Your task to perform on an android device: Open sound settings Image 0: 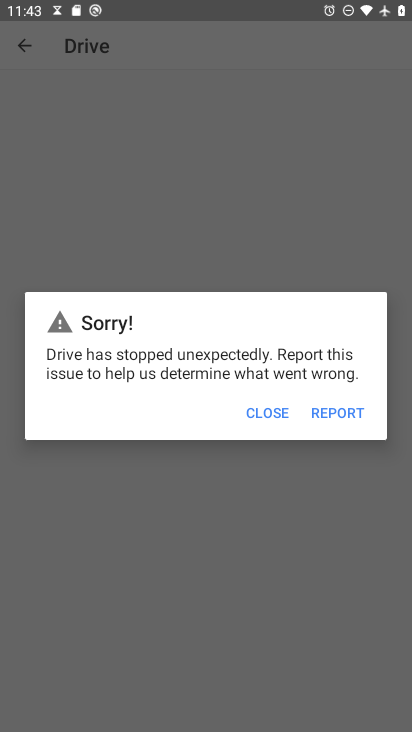
Step 0: press home button
Your task to perform on an android device: Open sound settings Image 1: 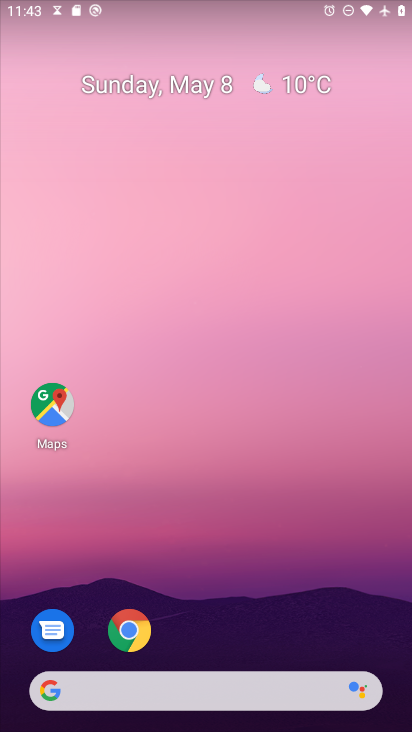
Step 1: drag from (207, 686) to (352, 74)
Your task to perform on an android device: Open sound settings Image 2: 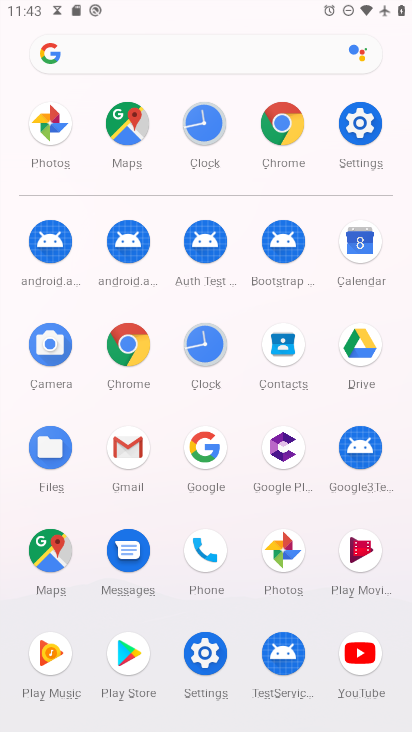
Step 2: click (356, 120)
Your task to perform on an android device: Open sound settings Image 3: 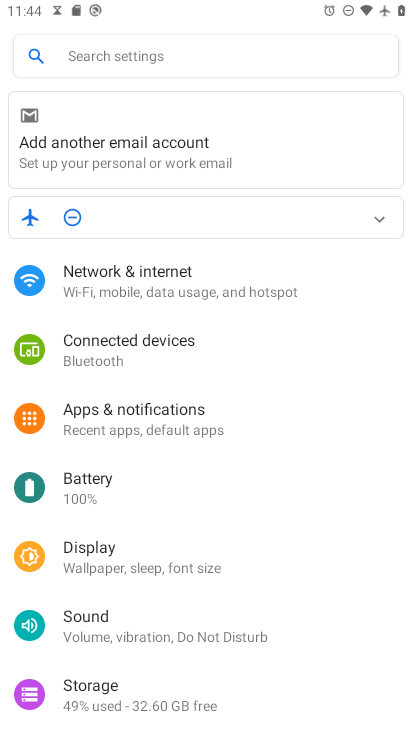
Step 3: click (144, 621)
Your task to perform on an android device: Open sound settings Image 4: 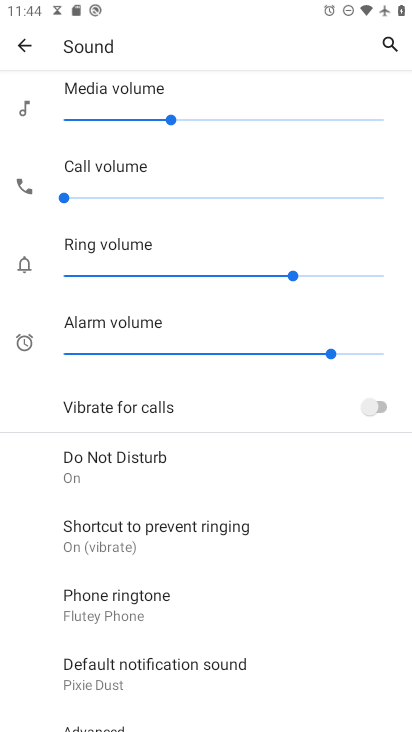
Step 4: task complete